Your task to perform on an android device: turn off airplane mode Image 0: 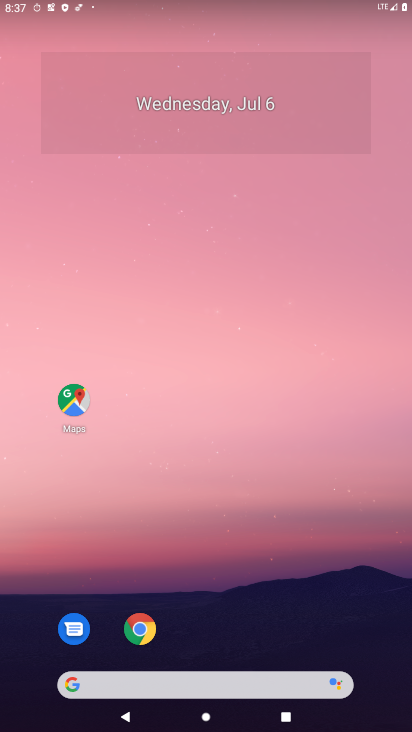
Step 0: drag from (238, 724) to (224, 82)
Your task to perform on an android device: turn off airplane mode Image 1: 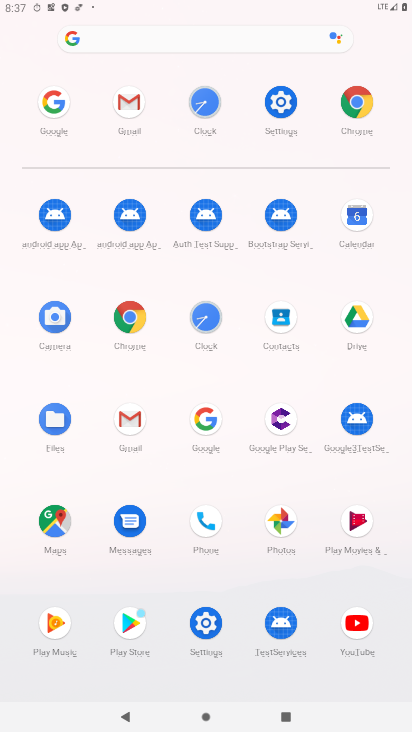
Step 1: click (278, 101)
Your task to perform on an android device: turn off airplane mode Image 2: 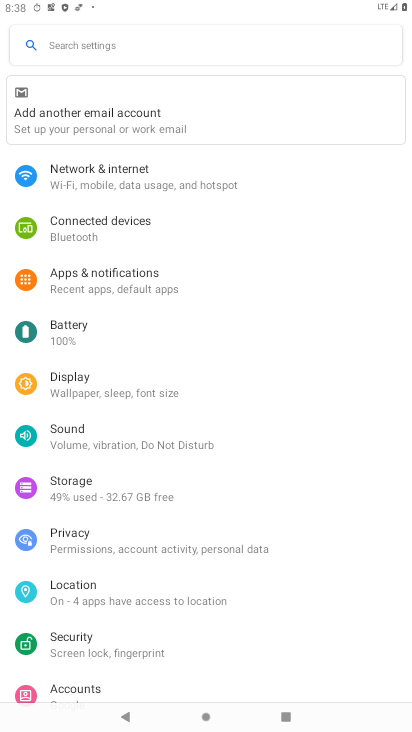
Step 2: click (116, 171)
Your task to perform on an android device: turn off airplane mode Image 3: 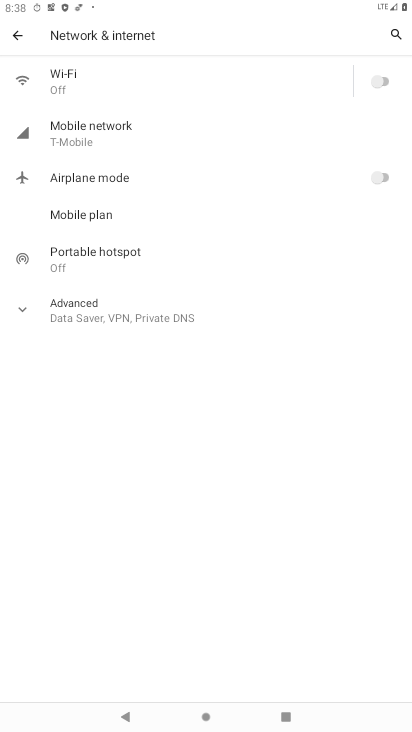
Step 3: task complete